Your task to perform on an android device: What is the recent news? Image 0: 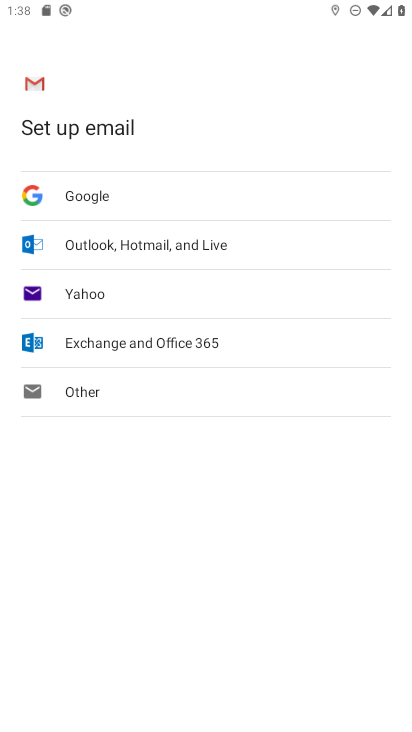
Step 0: press home button
Your task to perform on an android device: What is the recent news? Image 1: 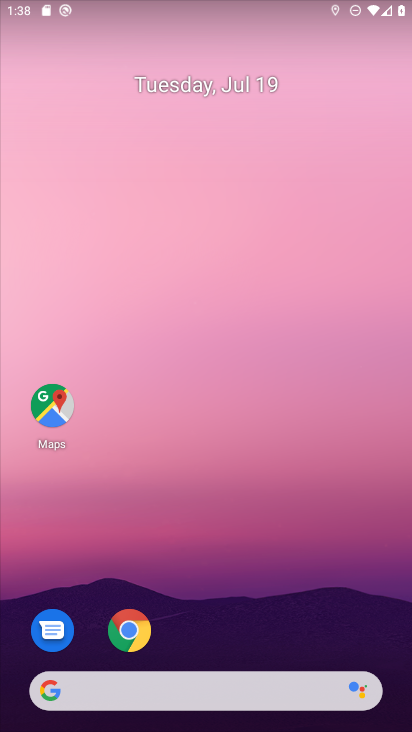
Step 1: click (118, 691)
Your task to perform on an android device: What is the recent news? Image 2: 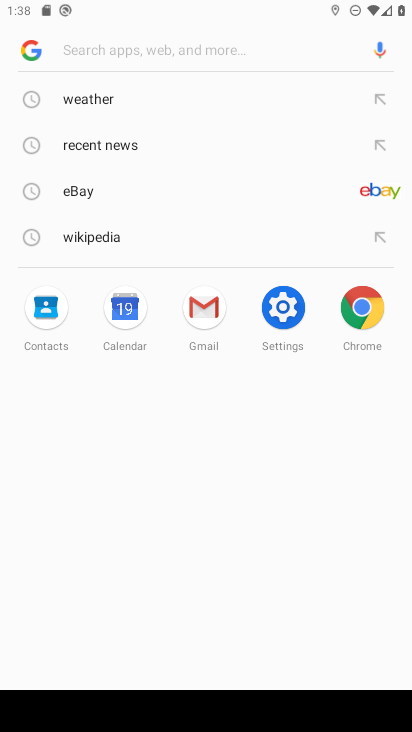
Step 2: click (109, 139)
Your task to perform on an android device: What is the recent news? Image 3: 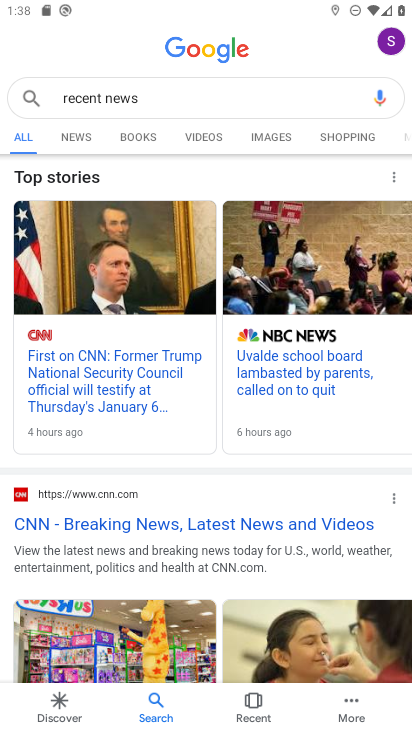
Step 3: click (69, 133)
Your task to perform on an android device: What is the recent news? Image 4: 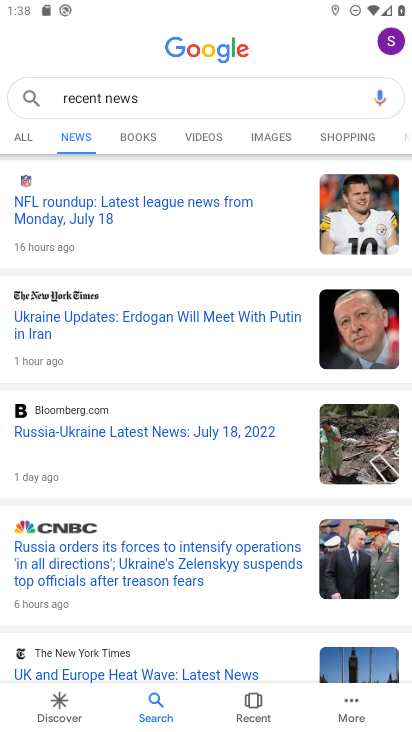
Step 4: task complete